Your task to perform on an android device: Open CNN.com Image 0: 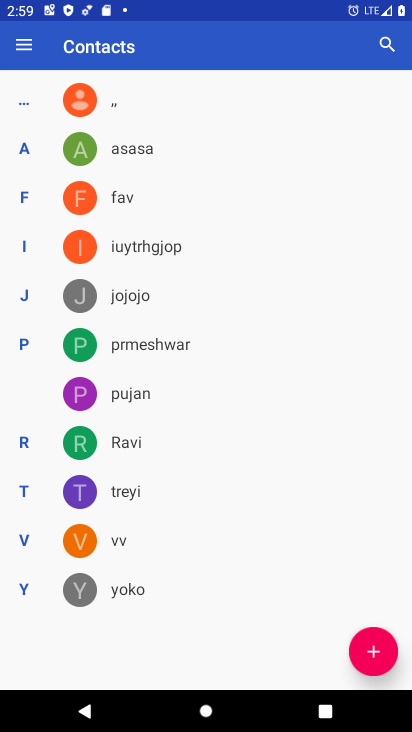
Step 0: press back button
Your task to perform on an android device: Open CNN.com Image 1: 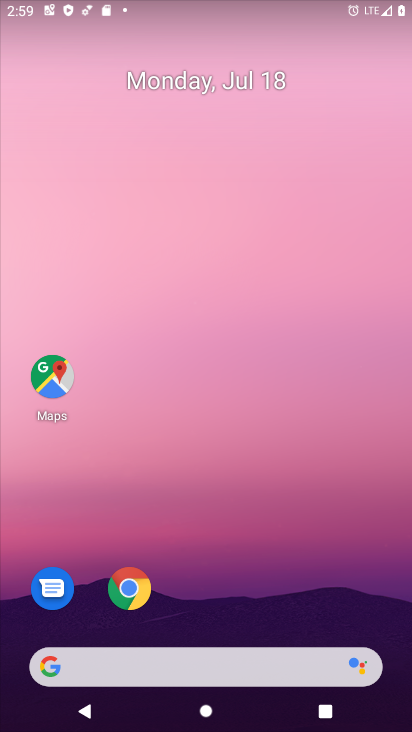
Step 1: click (137, 599)
Your task to perform on an android device: Open CNN.com Image 2: 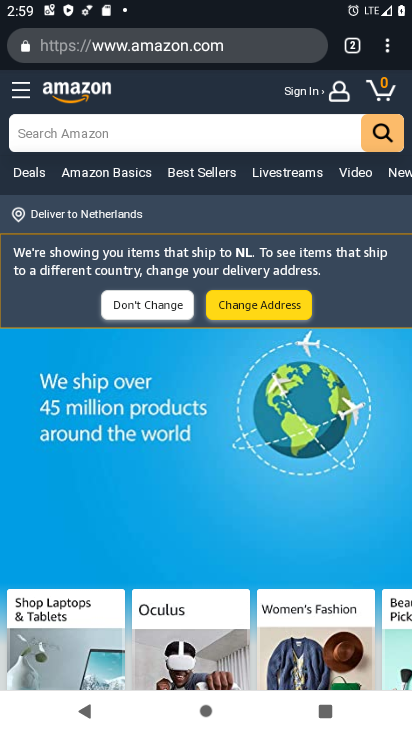
Step 2: click (139, 595)
Your task to perform on an android device: Open CNN.com Image 3: 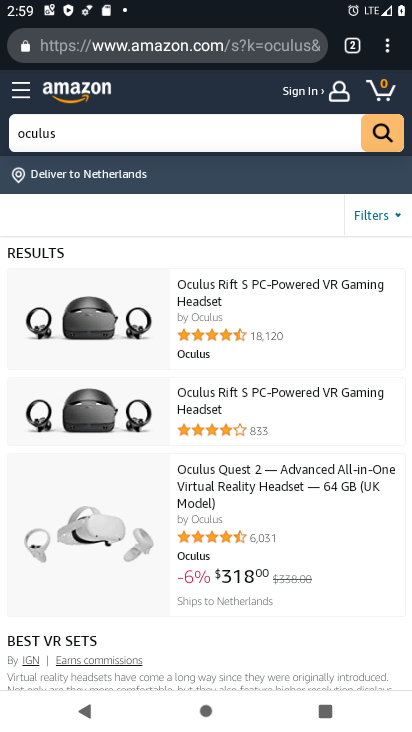
Step 3: click (346, 35)
Your task to perform on an android device: Open CNN.com Image 4: 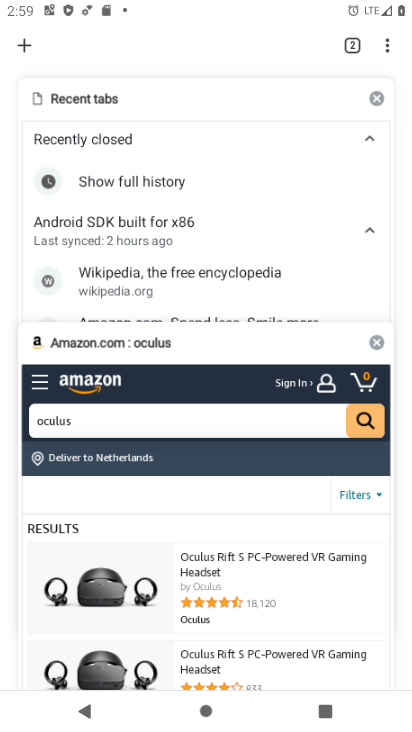
Step 4: click (29, 39)
Your task to perform on an android device: Open CNN.com Image 5: 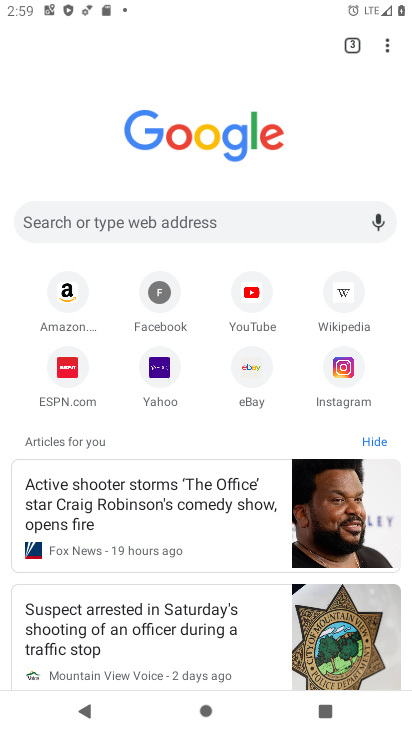
Step 5: click (152, 225)
Your task to perform on an android device: Open CNN.com Image 6: 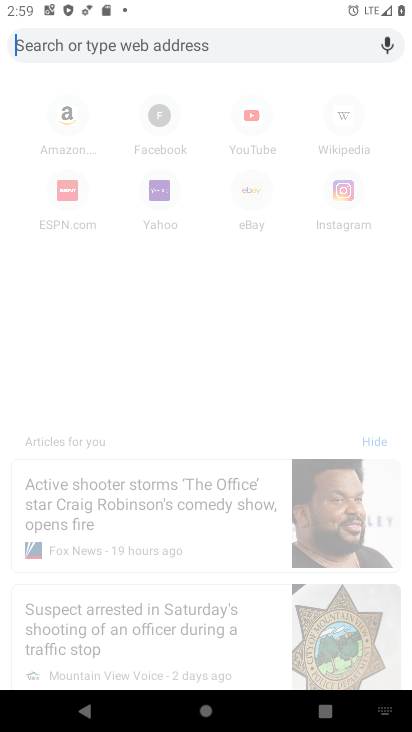
Step 6: type "cnn.com"
Your task to perform on an android device: Open CNN.com Image 7: 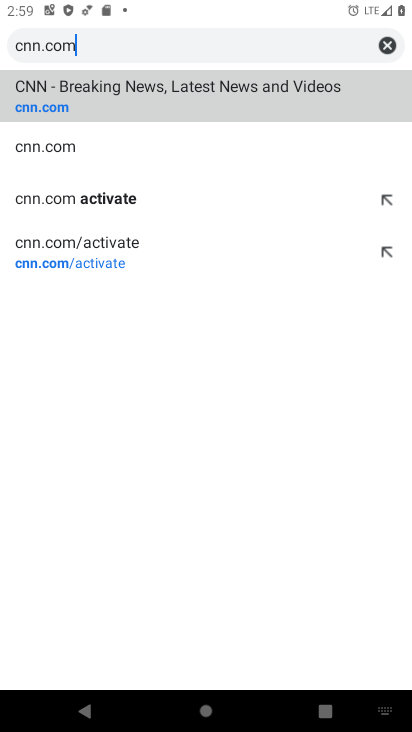
Step 7: click (83, 86)
Your task to perform on an android device: Open CNN.com Image 8: 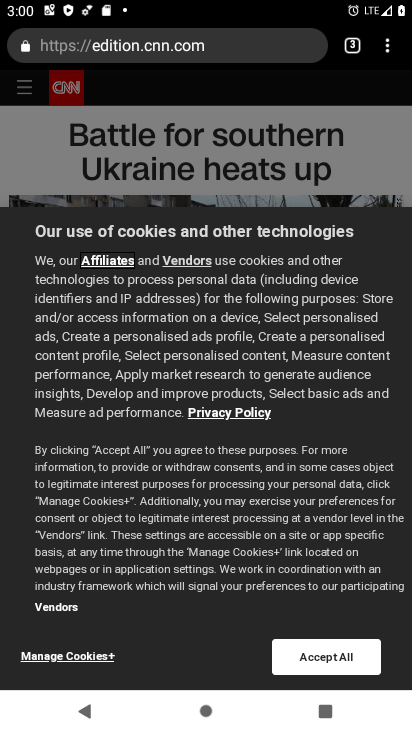
Step 8: task complete